Your task to perform on an android device: toggle airplane mode Image 0: 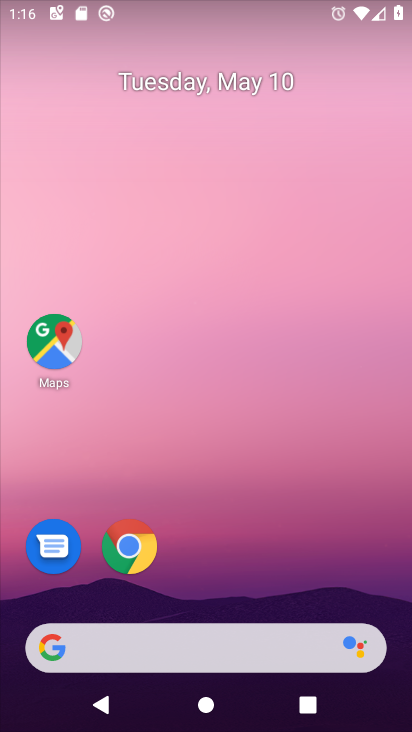
Step 0: press home button
Your task to perform on an android device: toggle airplane mode Image 1: 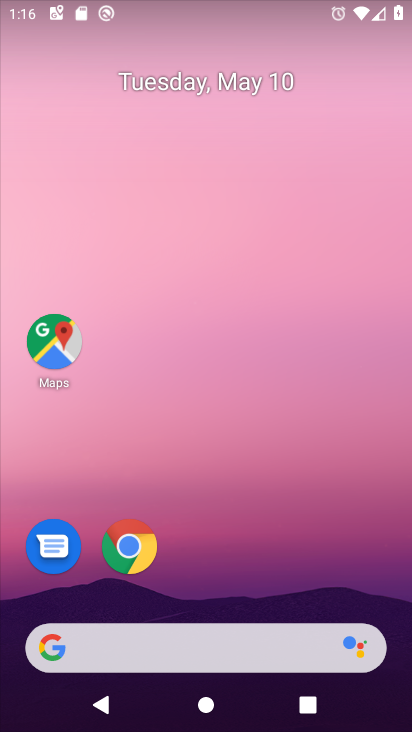
Step 1: drag from (330, 4) to (254, 684)
Your task to perform on an android device: toggle airplane mode Image 2: 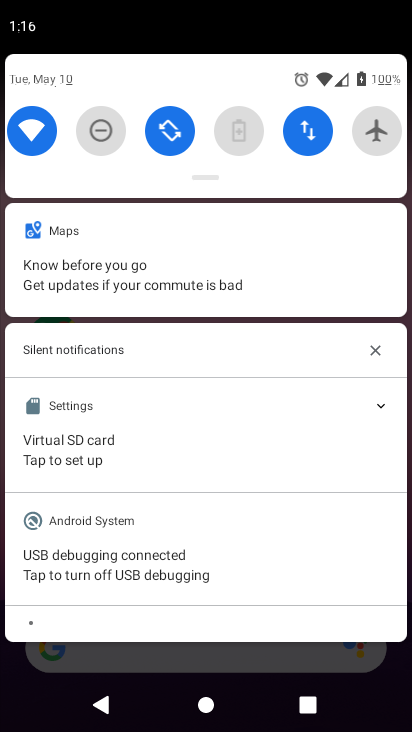
Step 2: click (385, 138)
Your task to perform on an android device: toggle airplane mode Image 3: 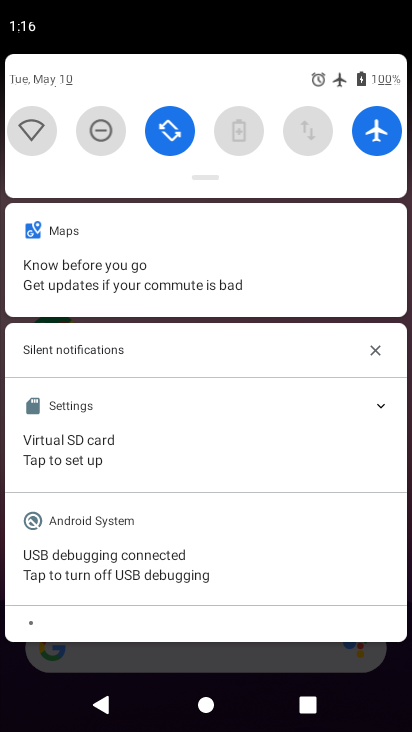
Step 3: task complete